Your task to perform on an android device: turn off sleep mode Image 0: 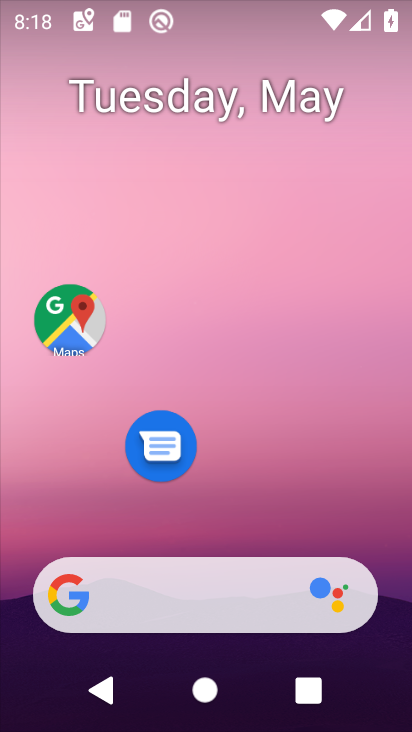
Step 0: drag from (198, 540) to (299, 13)
Your task to perform on an android device: turn off sleep mode Image 1: 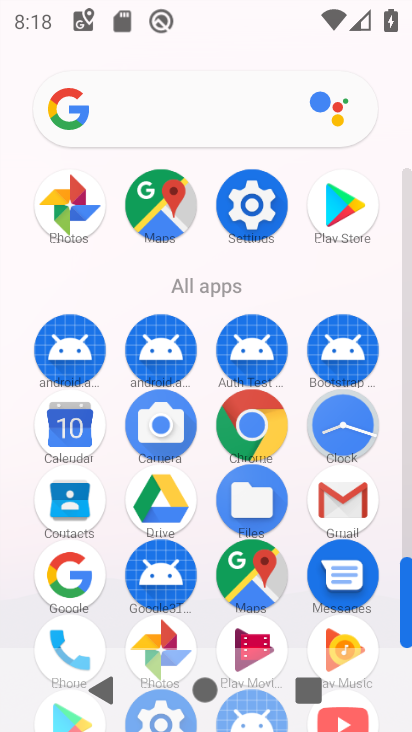
Step 1: click (265, 186)
Your task to perform on an android device: turn off sleep mode Image 2: 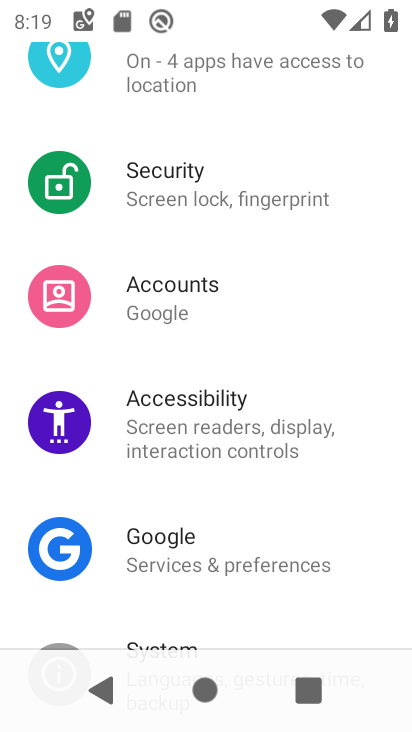
Step 2: drag from (195, 165) to (178, 509)
Your task to perform on an android device: turn off sleep mode Image 3: 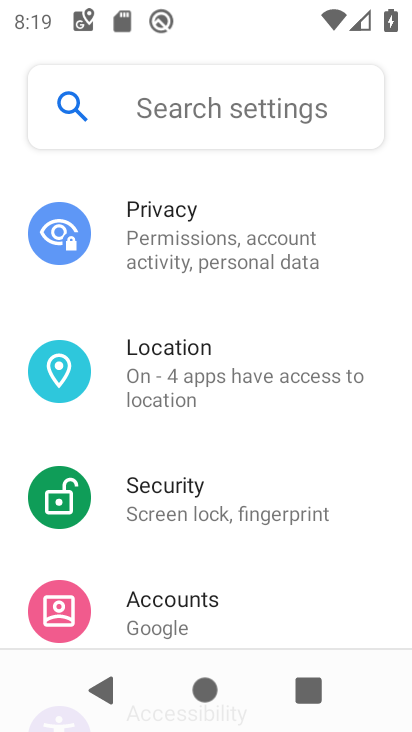
Step 3: drag from (191, 279) to (179, 697)
Your task to perform on an android device: turn off sleep mode Image 4: 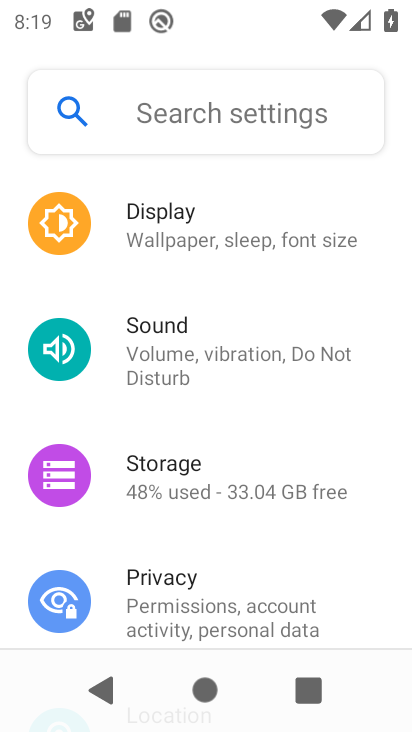
Step 4: click (174, 251)
Your task to perform on an android device: turn off sleep mode Image 5: 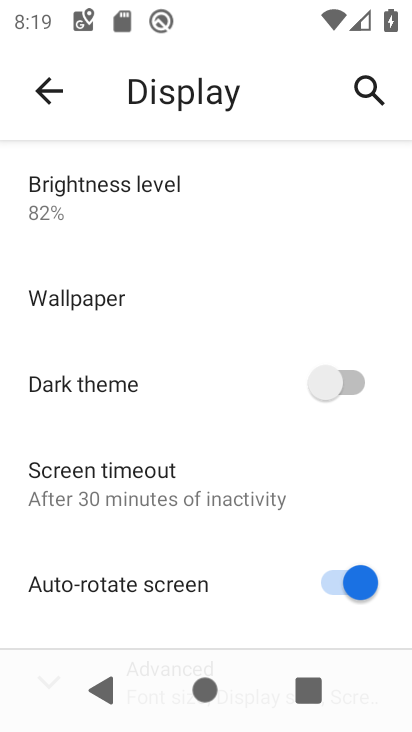
Step 5: drag from (169, 539) to (153, 62)
Your task to perform on an android device: turn off sleep mode Image 6: 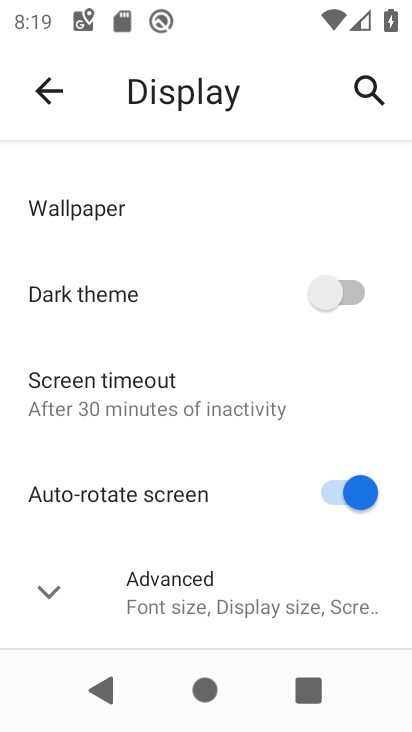
Step 6: click (179, 588)
Your task to perform on an android device: turn off sleep mode Image 7: 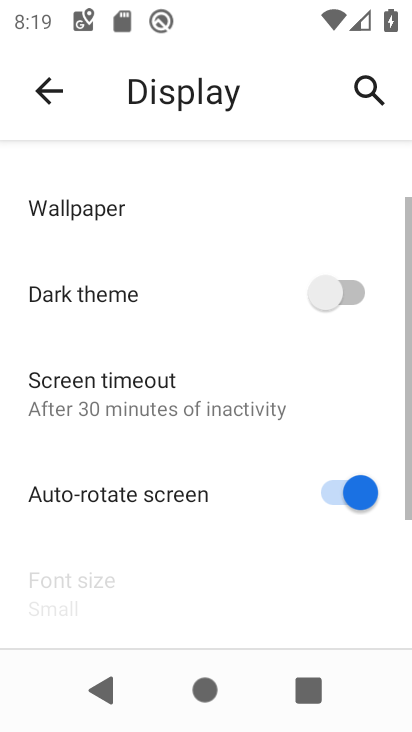
Step 7: task complete